Your task to perform on an android device: Open the web browser Image 0: 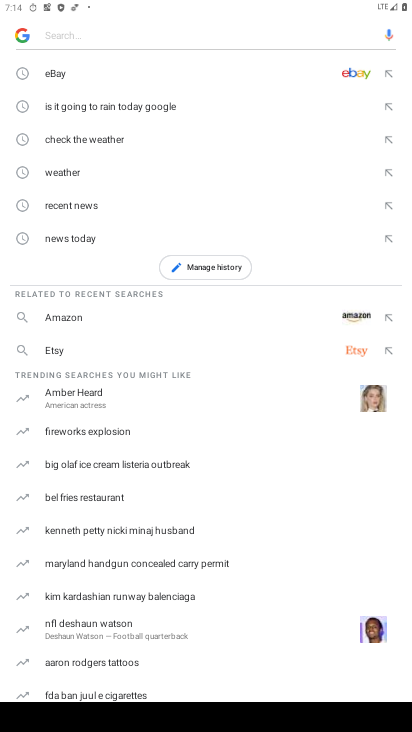
Step 0: press home button
Your task to perform on an android device: Open the web browser Image 1: 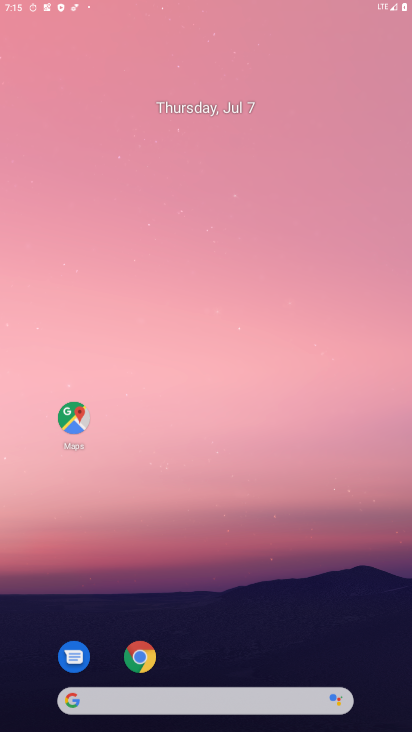
Step 1: drag from (355, 636) to (144, 103)
Your task to perform on an android device: Open the web browser Image 2: 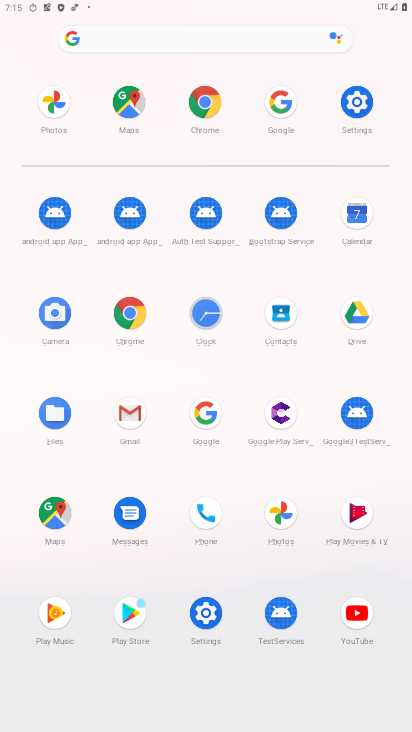
Step 2: click (218, 417)
Your task to perform on an android device: Open the web browser Image 3: 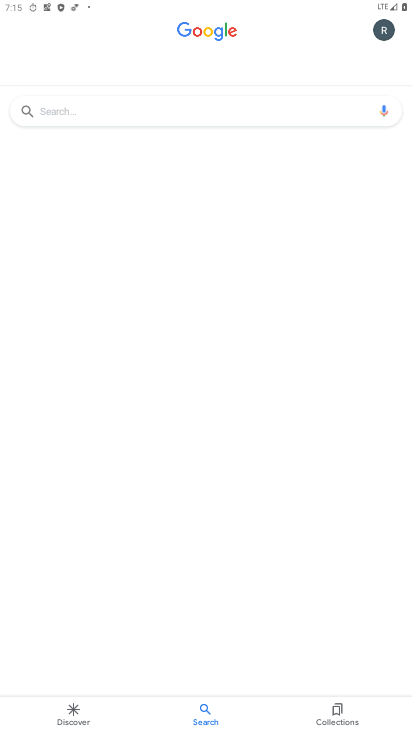
Step 3: click (114, 115)
Your task to perform on an android device: Open the web browser Image 4: 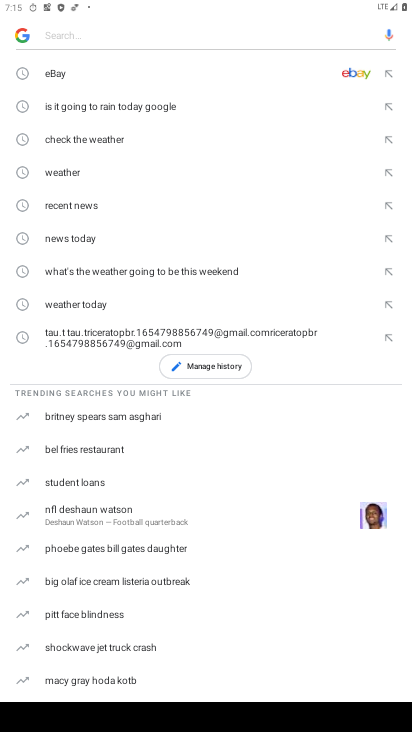
Step 4: type "web browser"
Your task to perform on an android device: Open the web browser Image 5: 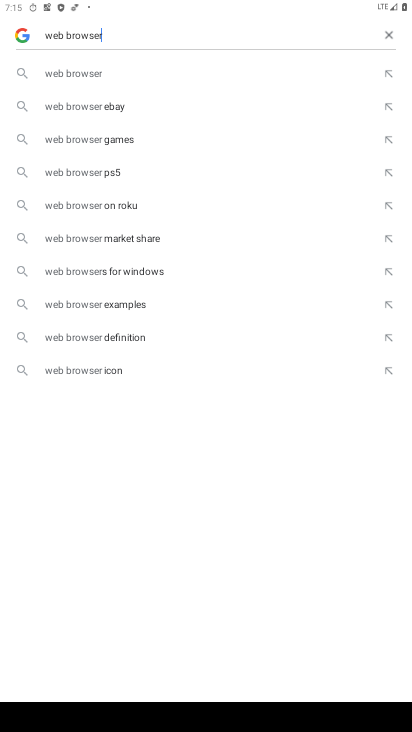
Step 5: click (87, 71)
Your task to perform on an android device: Open the web browser Image 6: 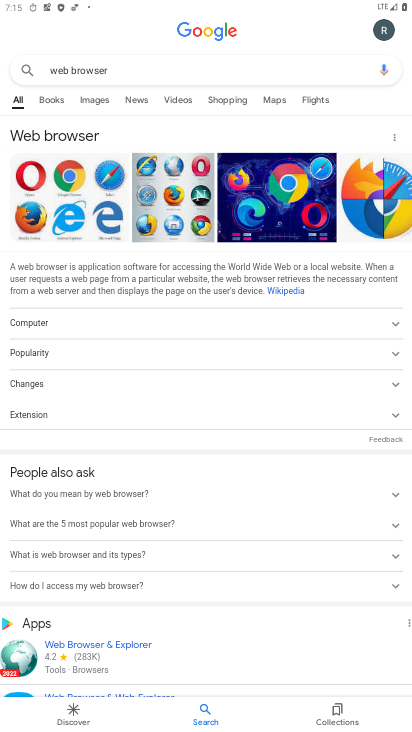
Step 6: task complete